Your task to perform on an android device: set the stopwatch Image 0: 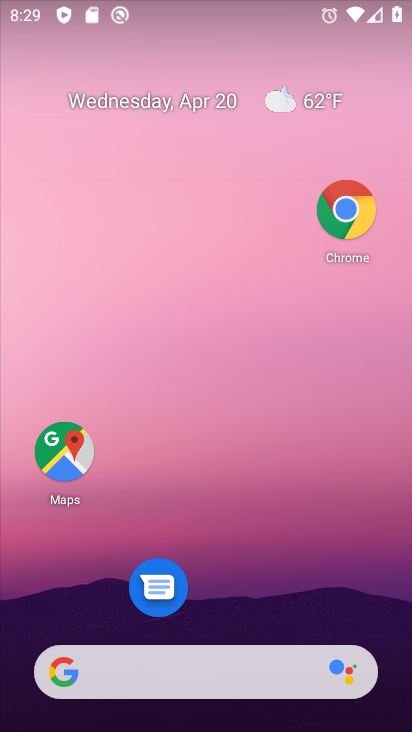
Step 0: drag from (215, 632) to (341, 87)
Your task to perform on an android device: set the stopwatch Image 1: 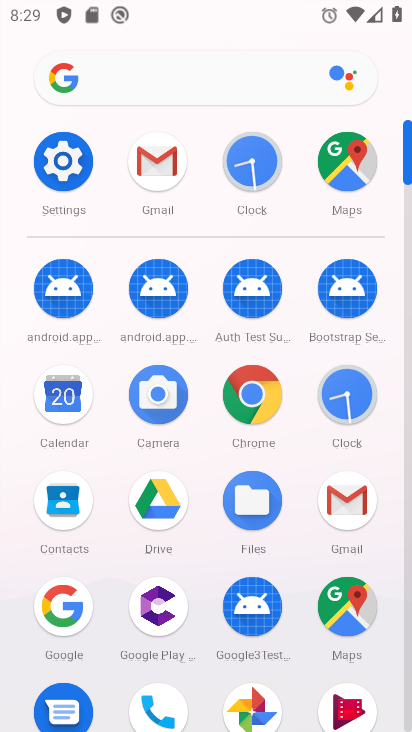
Step 1: click (264, 179)
Your task to perform on an android device: set the stopwatch Image 2: 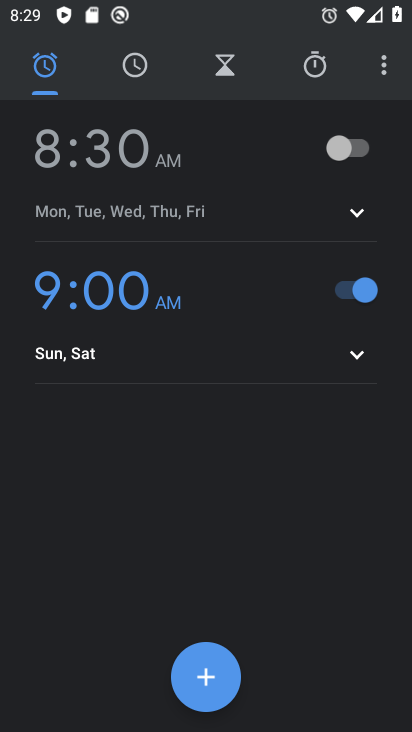
Step 2: click (322, 64)
Your task to perform on an android device: set the stopwatch Image 3: 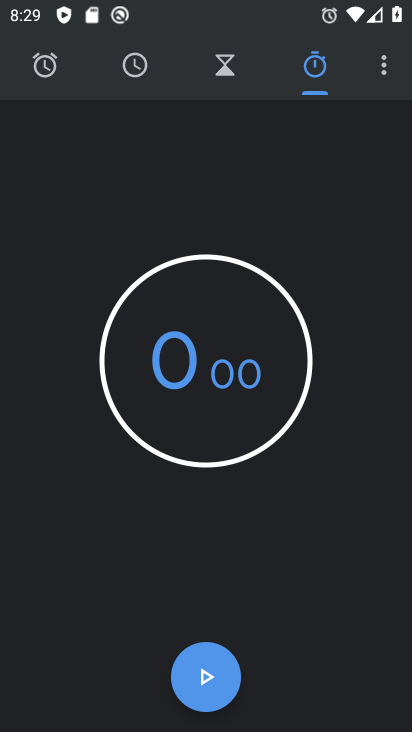
Step 3: click (191, 669)
Your task to perform on an android device: set the stopwatch Image 4: 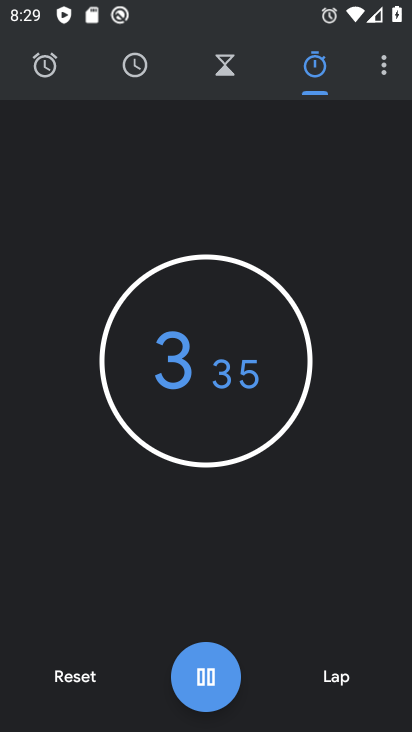
Step 4: task complete